Your task to perform on an android device: Go to Yahoo.com Image 0: 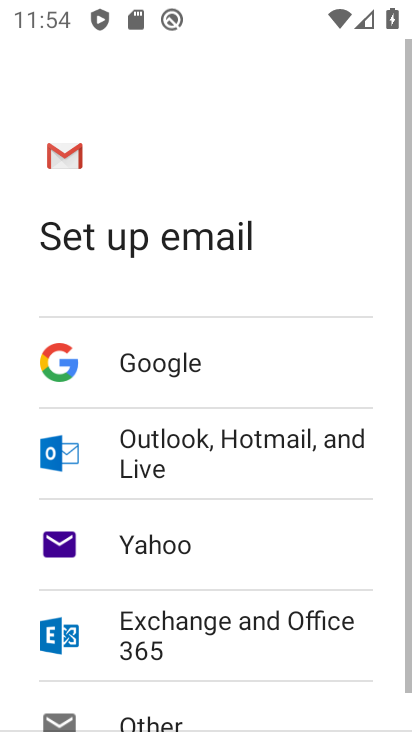
Step 0: press home button
Your task to perform on an android device: Go to Yahoo.com Image 1: 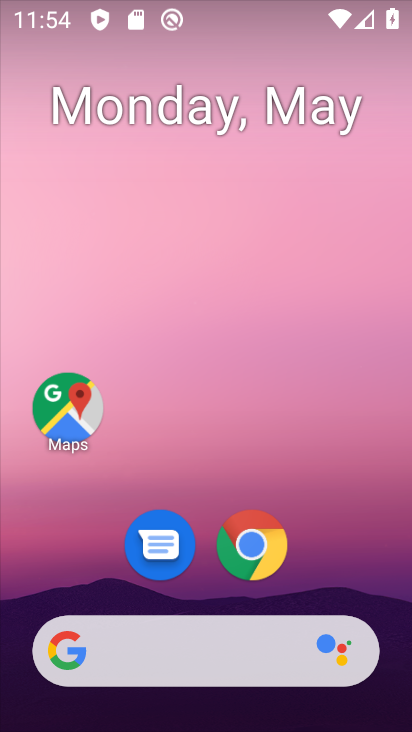
Step 1: click (235, 642)
Your task to perform on an android device: Go to Yahoo.com Image 2: 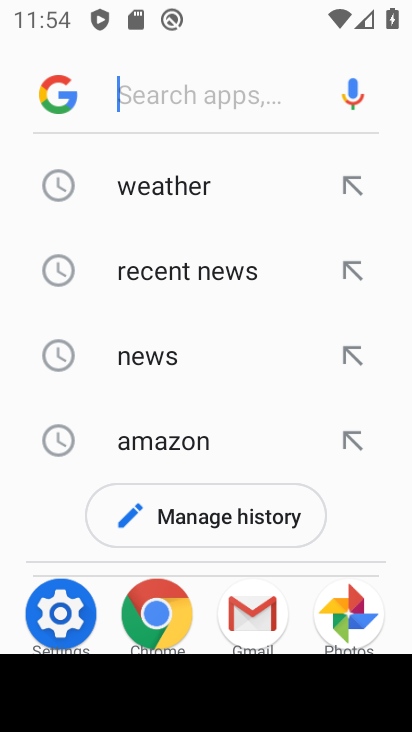
Step 2: click (166, 624)
Your task to perform on an android device: Go to Yahoo.com Image 3: 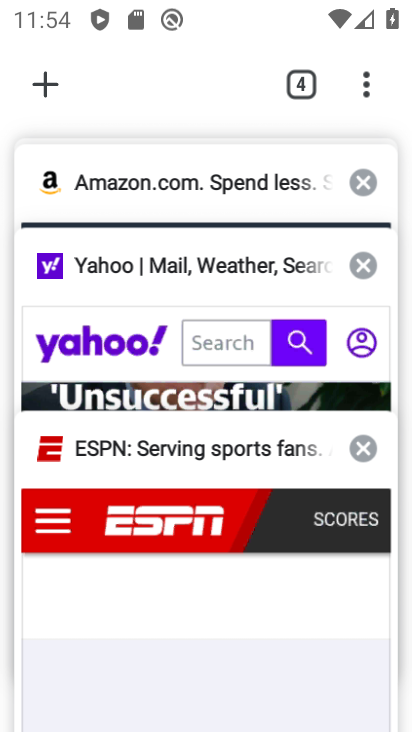
Step 3: click (242, 318)
Your task to perform on an android device: Go to Yahoo.com Image 4: 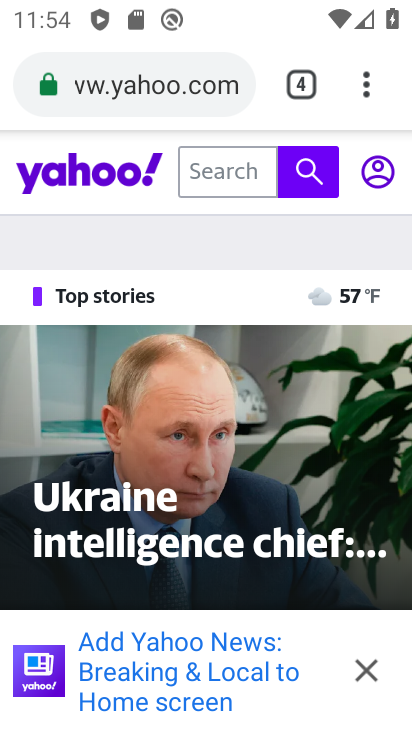
Step 4: task complete